Your task to perform on an android device: check the backup settings in the google photos Image 0: 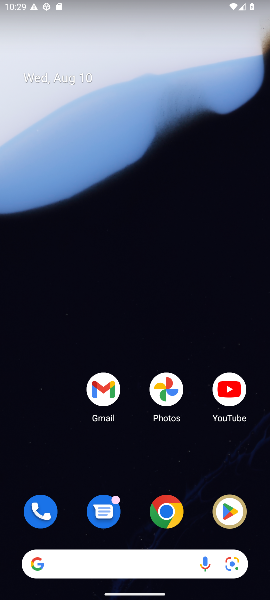
Step 0: click (178, 414)
Your task to perform on an android device: check the backup settings in the google photos Image 1: 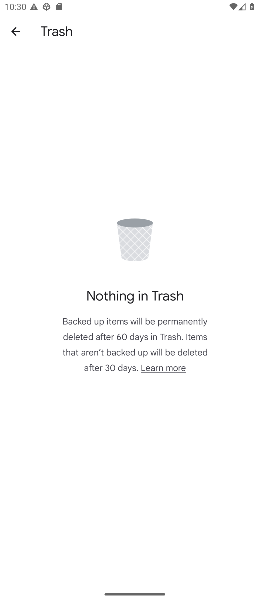
Step 1: click (12, 29)
Your task to perform on an android device: check the backup settings in the google photos Image 2: 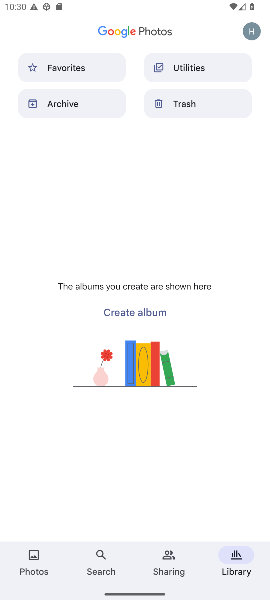
Step 2: click (255, 22)
Your task to perform on an android device: check the backup settings in the google photos Image 3: 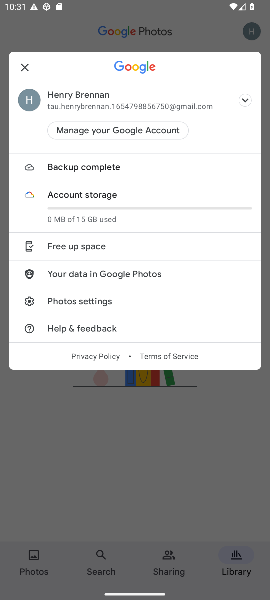
Step 3: click (101, 306)
Your task to perform on an android device: check the backup settings in the google photos Image 4: 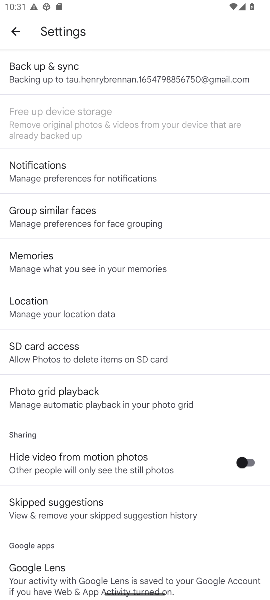
Step 4: click (108, 79)
Your task to perform on an android device: check the backup settings in the google photos Image 5: 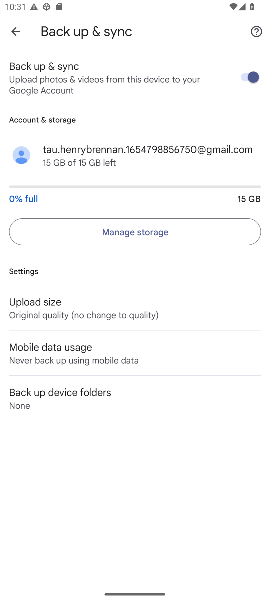
Step 5: click (136, 321)
Your task to perform on an android device: check the backup settings in the google photos Image 6: 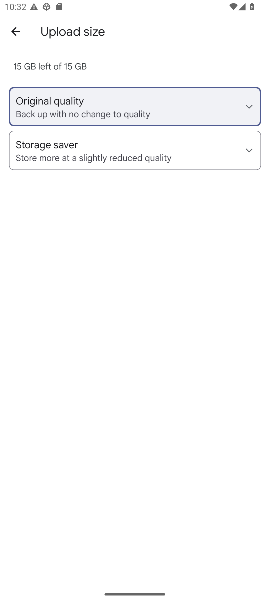
Step 6: click (134, 144)
Your task to perform on an android device: check the backup settings in the google photos Image 7: 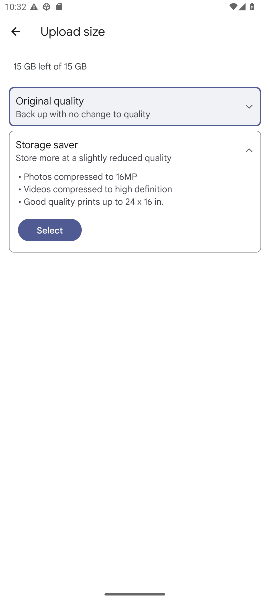
Step 7: task complete